Your task to perform on an android device: turn on improve location accuracy Image 0: 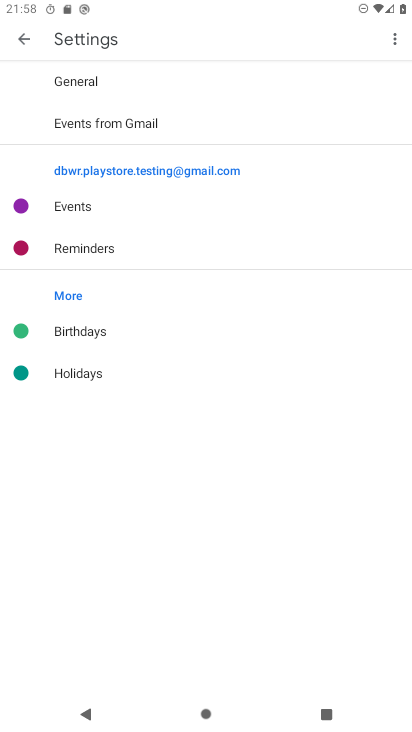
Step 0: press home button
Your task to perform on an android device: turn on improve location accuracy Image 1: 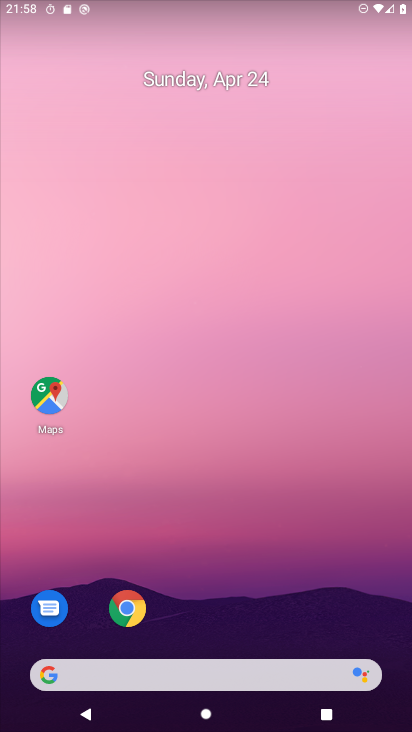
Step 1: drag from (216, 583) to (211, 55)
Your task to perform on an android device: turn on improve location accuracy Image 2: 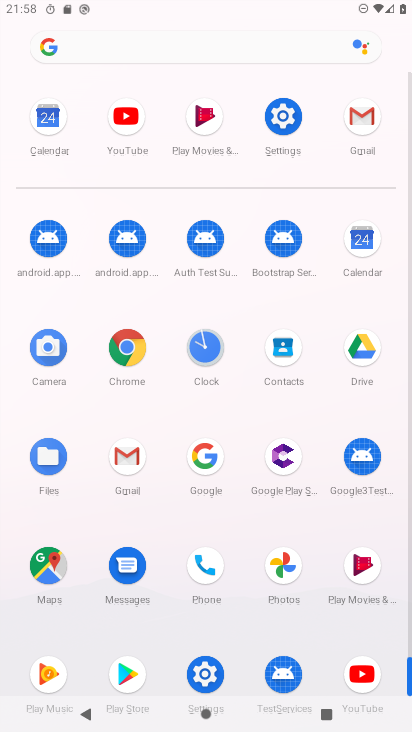
Step 2: click (287, 117)
Your task to perform on an android device: turn on improve location accuracy Image 3: 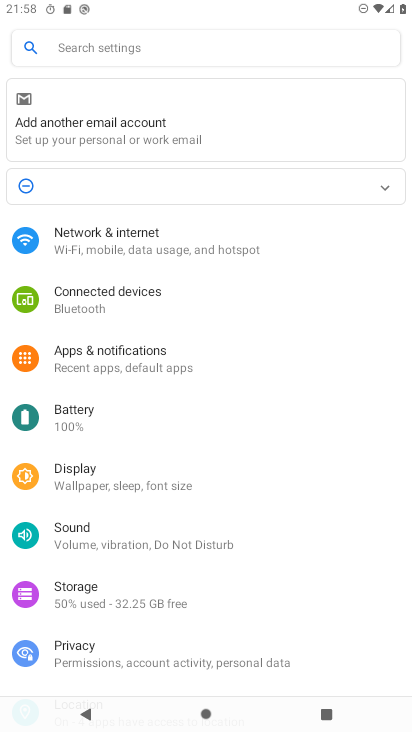
Step 3: drag from (200, 621) to (184, 259)
Your task to perform on an android device: turn on improve location accuracy Image 4: 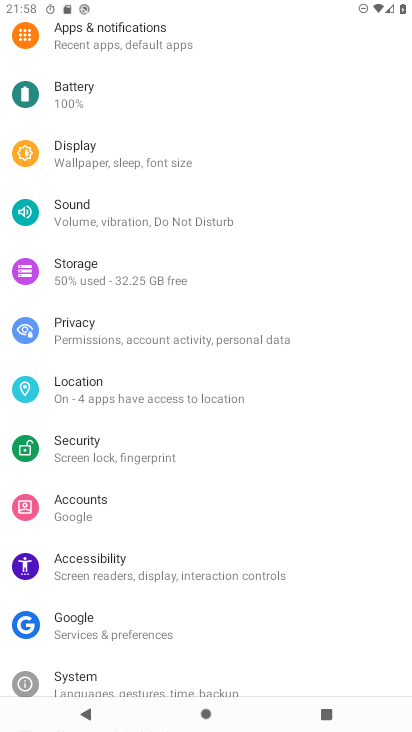
Step 4: click (157, 385)
Your task to perform on an android device: turn on improve location accuracy Image 5: 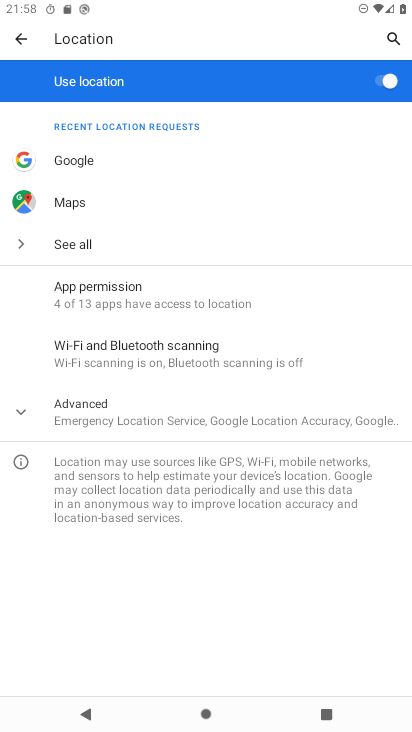
Step 5: click (16, 406)
Your task to perform on an android device: turn on improve location accuracy Image 6: 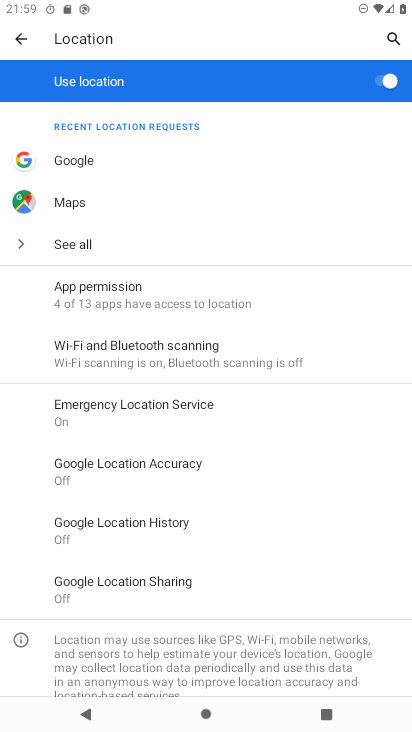
Step 6: click (169, 471)
Your task to perform on an android device: turn on improve location accuracy Image 7: 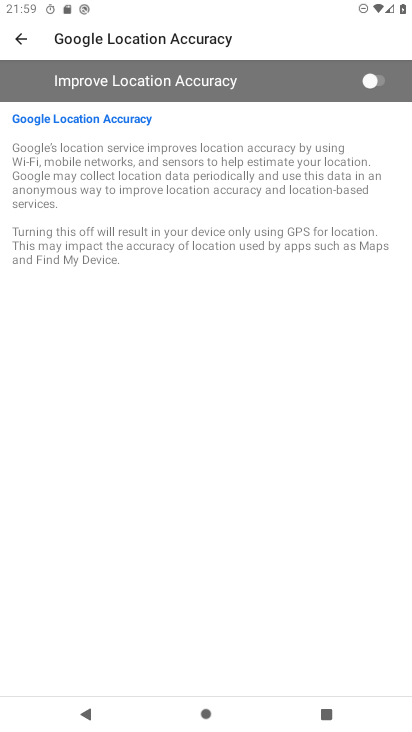
Step 7: click (378, 70)
Your task to perform on an android device: turn on improve location accuracy Image 8: 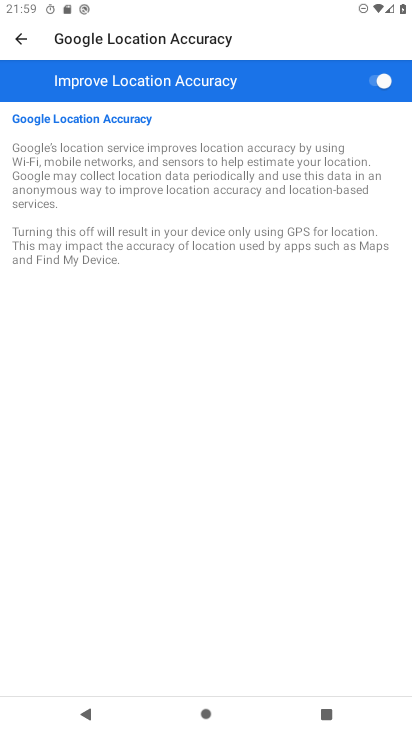
Step 8: task complete